Your task to perform on an android device: Go to Google maps Image 0: 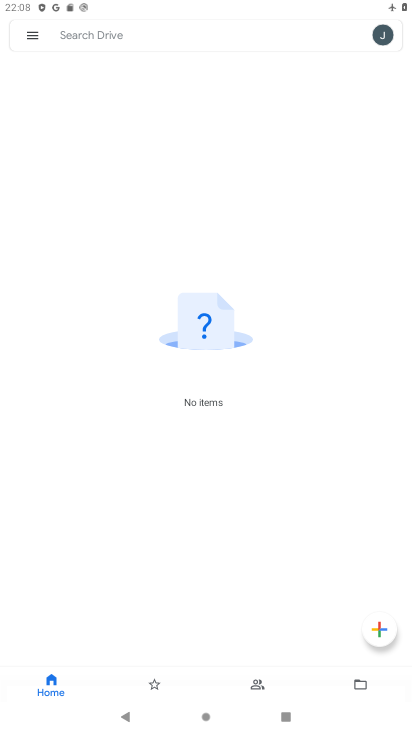
Step 0: press back button
Your task to perform on an android device: Go to Google maps Image 1: 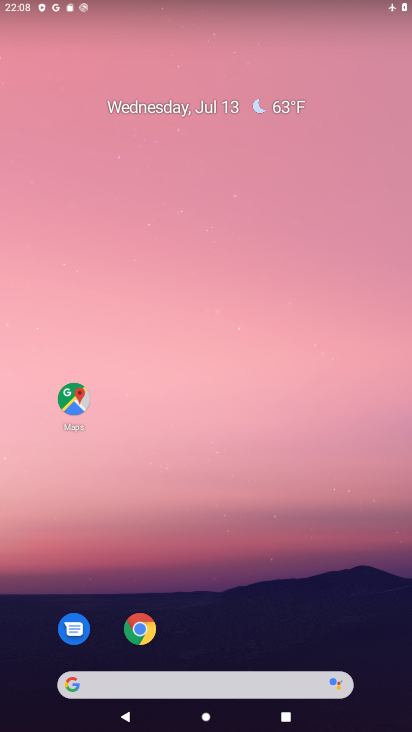
Step 1: drag from (224, 448) to (223, 172)
Your task to perform on an android device: Go to Google maps Image 2: 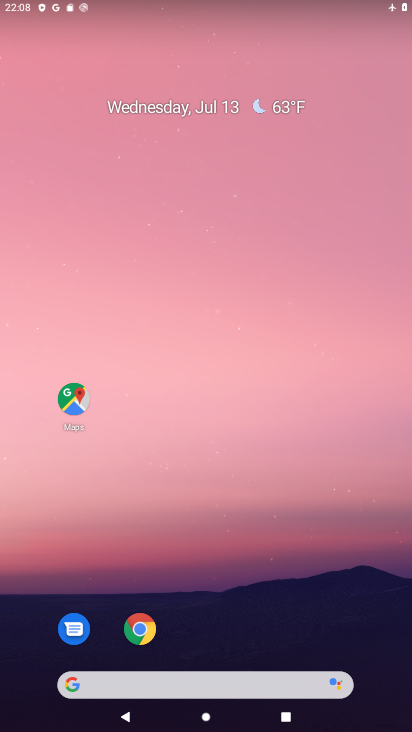
Step 2: drag from (279, 669) to (217, 218)
Your task to perform on an android device: Go to Google maps Image 3: 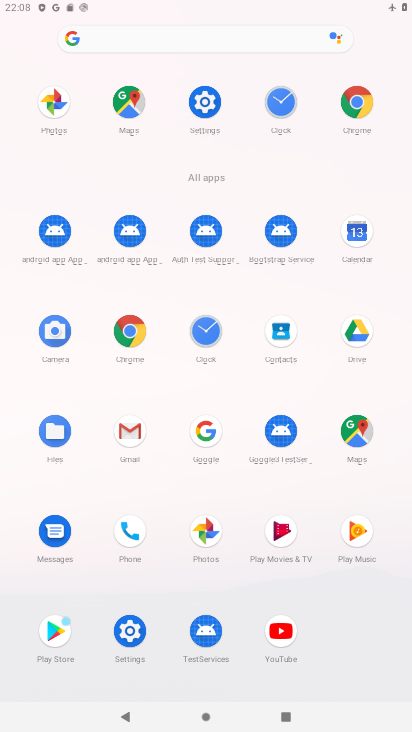
Step 3: drag from (217, 551) to (170, 187)
Your task to perform on an android device: Go to Google maps Image 4: 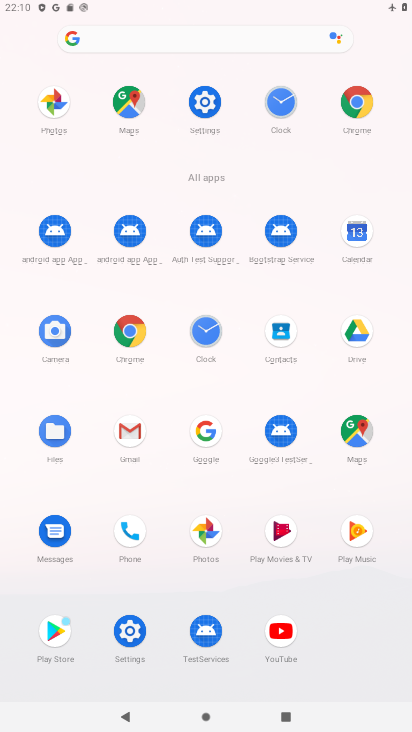
Step 4: click (363, 433)
Your task to perform on an android device: Go to Google maps Image 5: 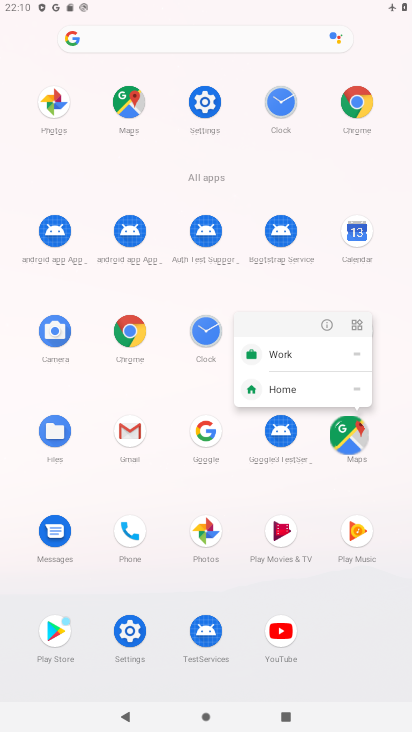
Step 5: click (355, 437)
Your task to perform on an android device: Go to Google maps Image 6: 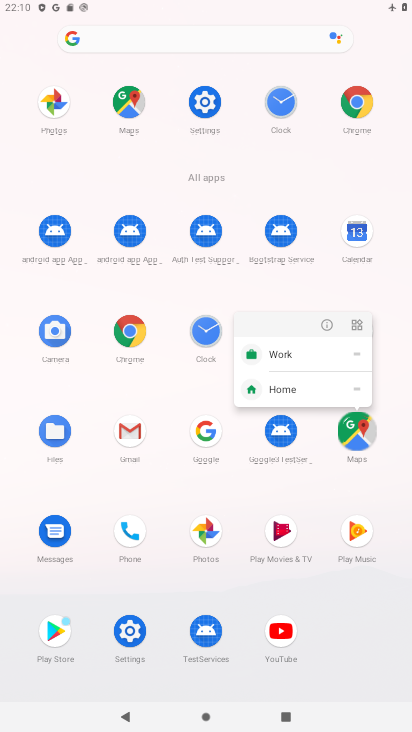
Step 6: click (355, 438)
Your task to perform on an android device: Go to Google maps Image 7: 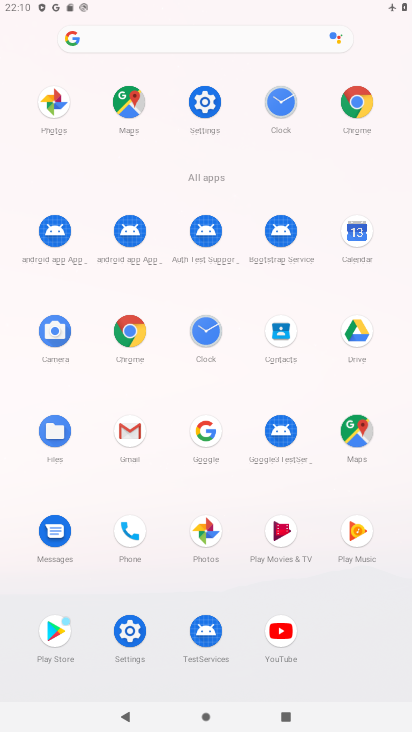
Step 7: click (354, 434)
Your task to perform on an android device: Go to Google maps Image 8: 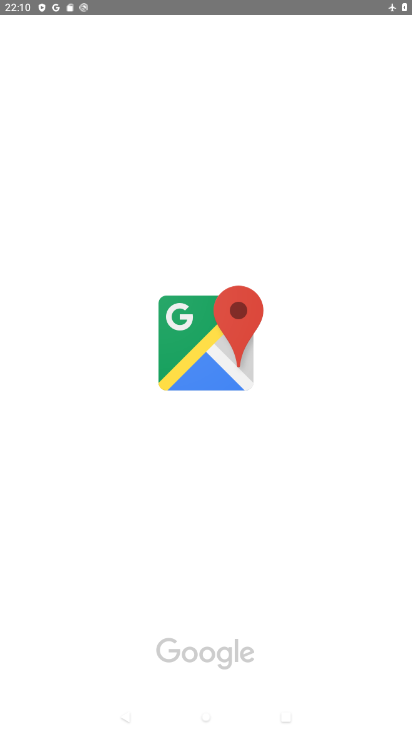
Step 8: click (349, 414)
Your task to perform on an android device: Go to Google maps Image 9: 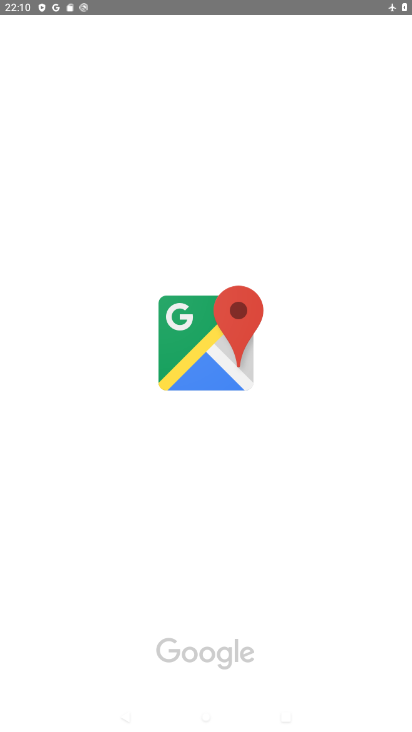
Step 9: task complete